Your task to perform on an android device: What's the weather going to be this weekend? Image 0: 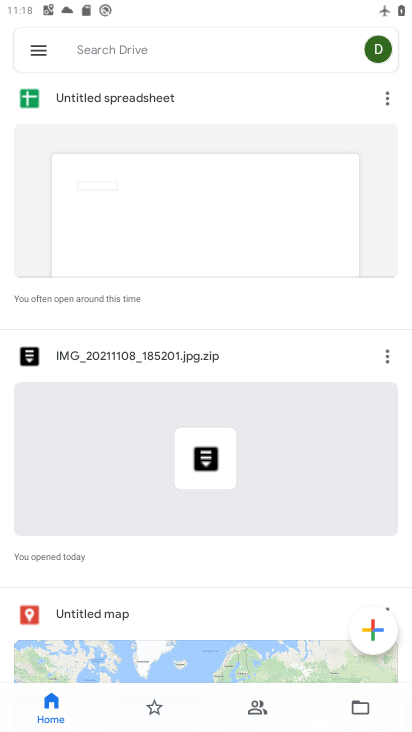
Step 0: press home button
Your task to perform on an android device: What's the weather going to be this weekend? Image 1: 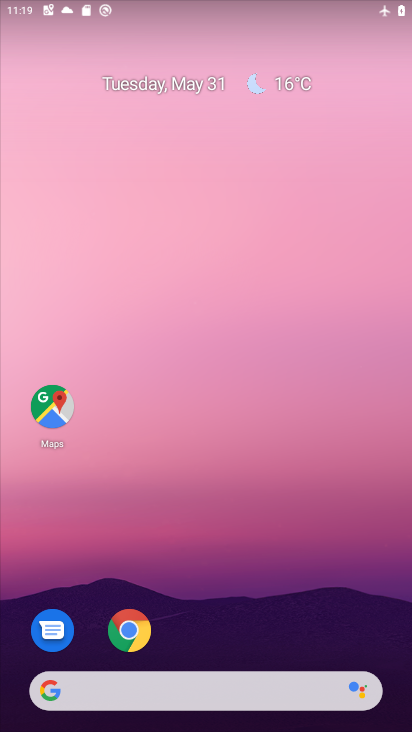
Step 1: drag from (323, 576) to (266, 609)
Your task to perform on an android device: What's the weather going to be this weekend? Image 2: 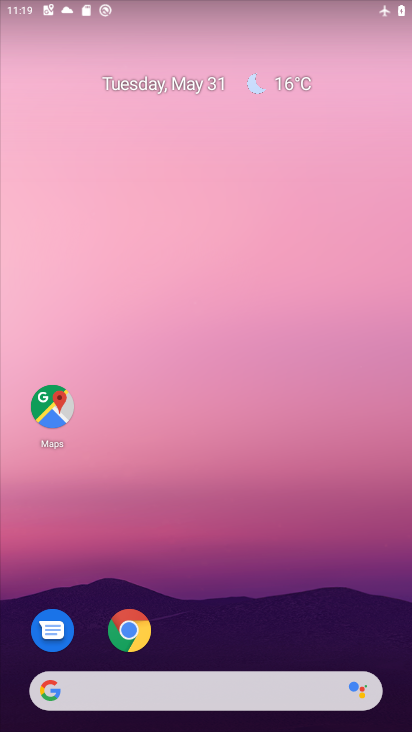
Step 2: click (284, 89)
Your task to perform on an android device: What's the weather going to be this weekend? Image 3: 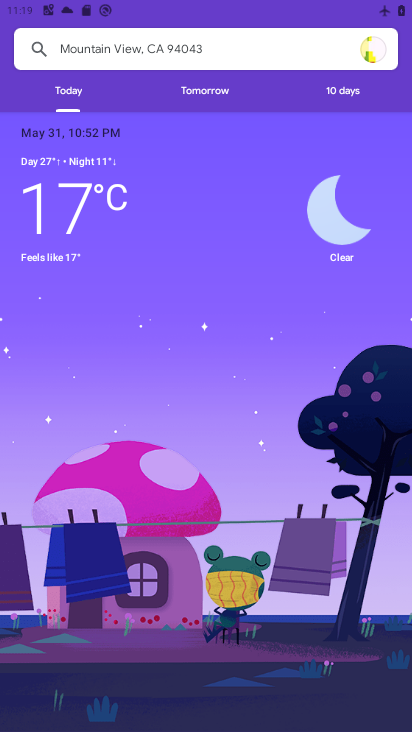
Step 3: click (322, 89)
Your task to perform on an android device: What's the weather going to be this weekend? Image 4: 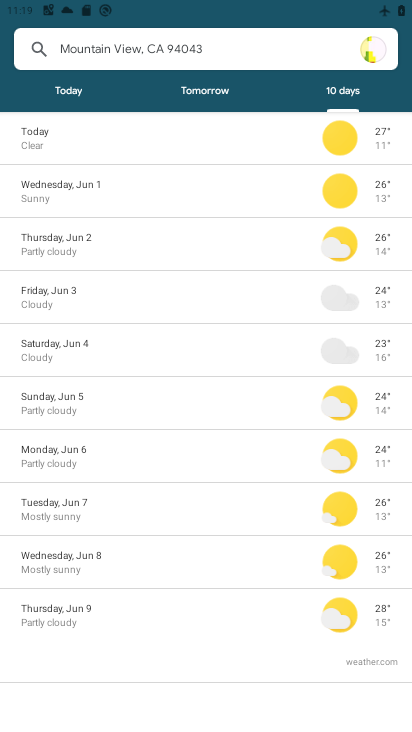
Step 4: task complete